Your task to perform on an android device: clear history in the chrome app Image 0: 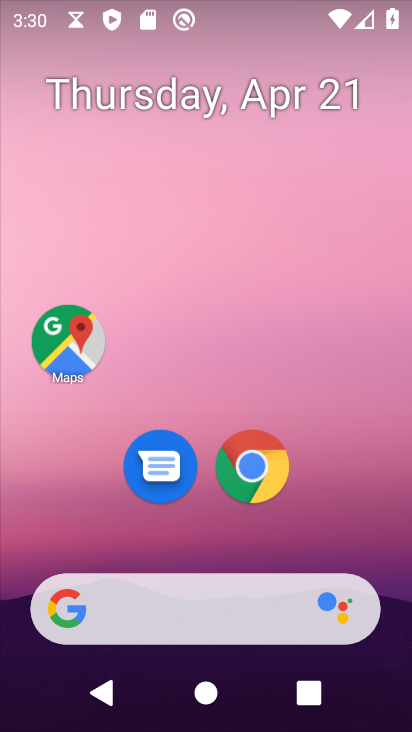
Step 0: click (267, 456)
Your task to perform on an android device: clear history in the chrome app Image 1: 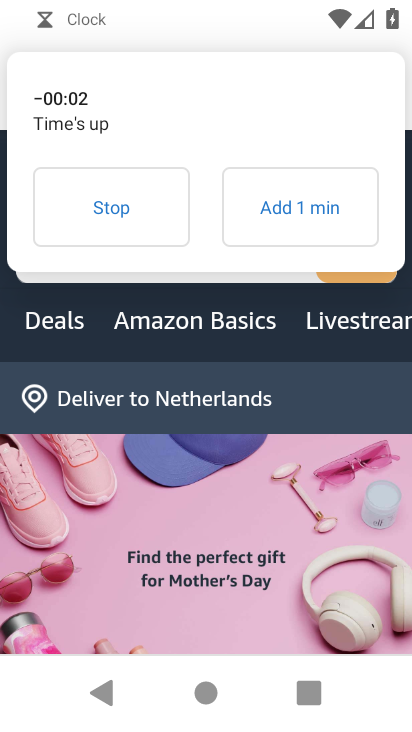
Step 1: click (140, 197)
Your task to perform on an android device: clear history in the chrome app Image 2: 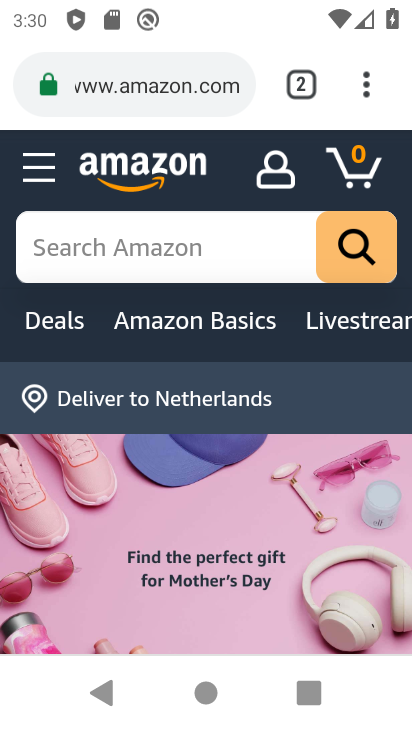
Step 2: drag from (365, 85) to (115, 451)
Your task to perform on an android device: clear history in the chrome app Image 3: 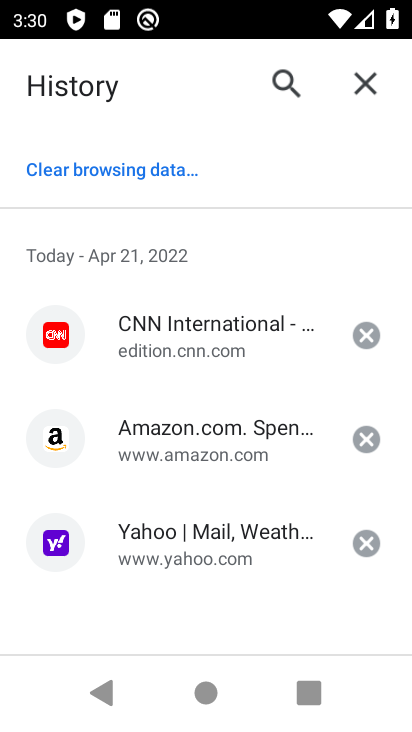
Step 3: click (135, 171)
Your task to perform on an android device: clear history in the chrome app Image 4: 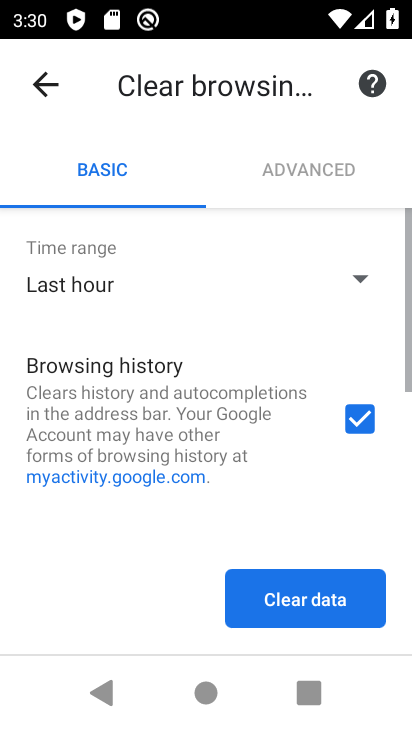
Step 4: click (293, 584)
Your task to perform on an android device: clear history in the chrome app Image 5: 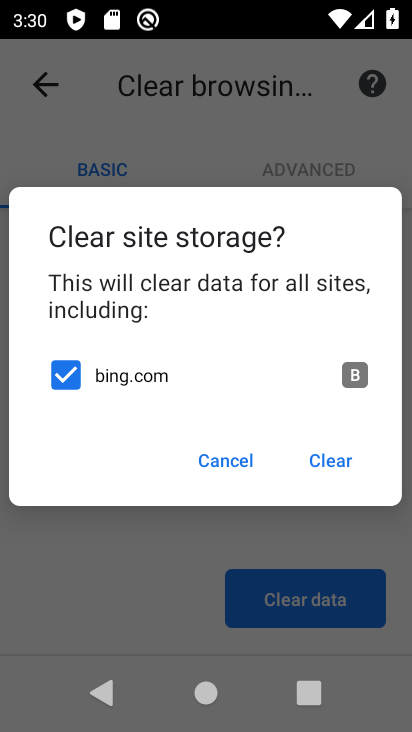
Step 5: click (333, 454)
Your task to perform on an android device: clear history in the chrome app Image 6: 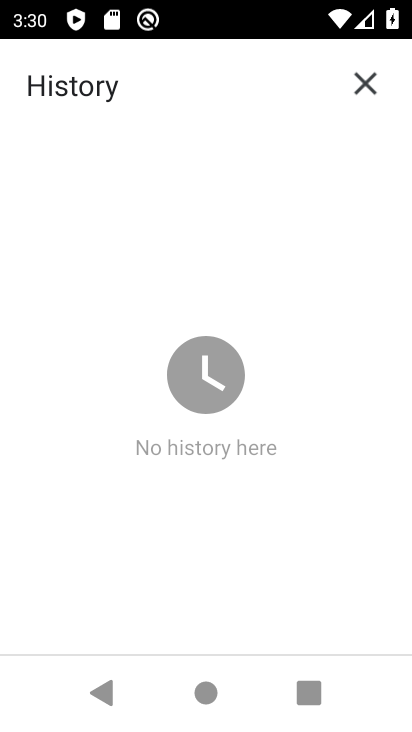
Step 6: task complete